Your task to perform on an android device: turn on bluetooth scan Image 0: 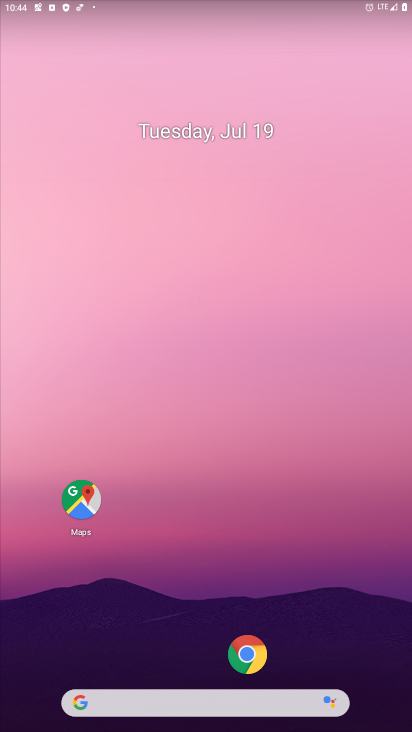
Step 0: drag from (182, 653) to (155, 10)
Your task to perform on an android device: turn on bluetooth scan Image 1: 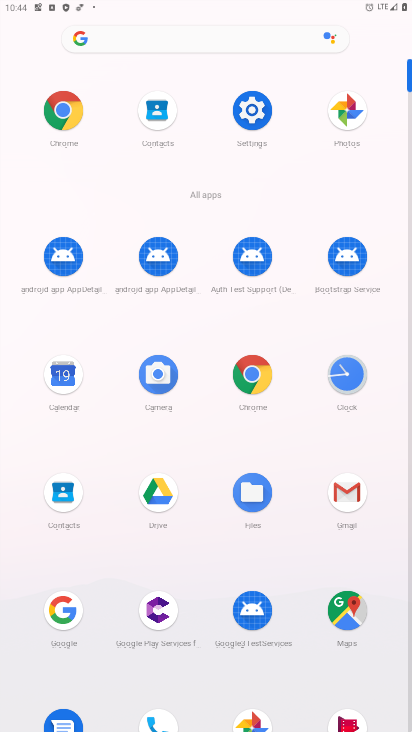
Step 1: click (234, 107)
Your task to perform on an android device: turn on bluetooth scan Image 2: 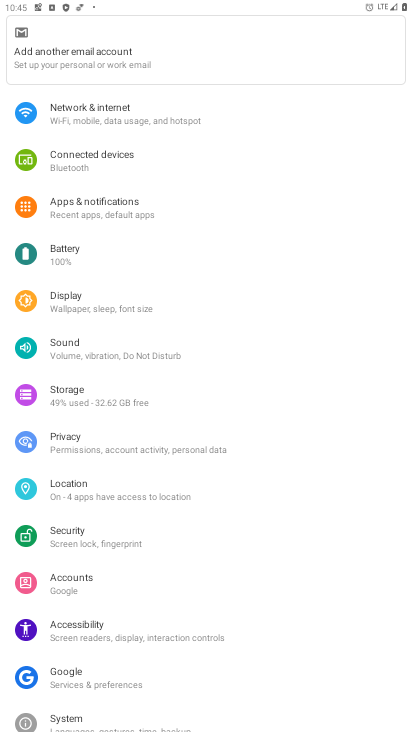
Step 2: click (121, 490)
Your task to perform on an android device: turn on bluetooth scan Image 3: 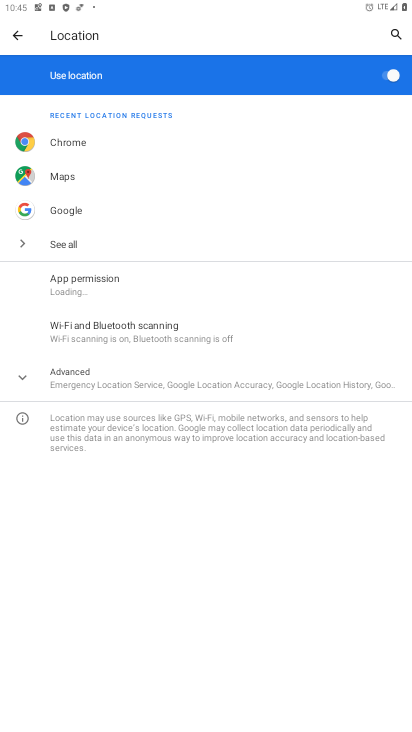
Step 3: click (174, 343)
Your task to perform on an android device: turn on bluetooth scan Image 4: 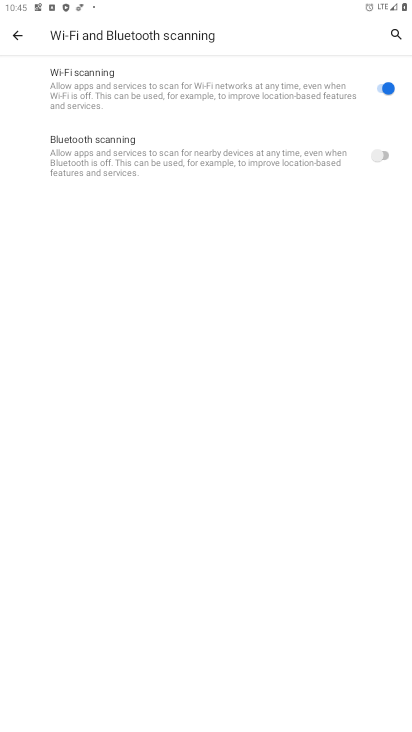
Step 4: click (382, 158)
Your task to perform on an android device: turn on bluetooth scan Image 5: 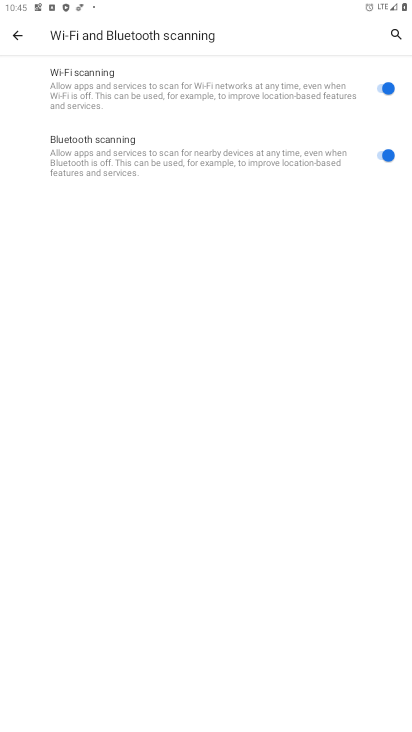
Step 5: task complete